Your task to perform on an android device: turn off wifi Image 0: 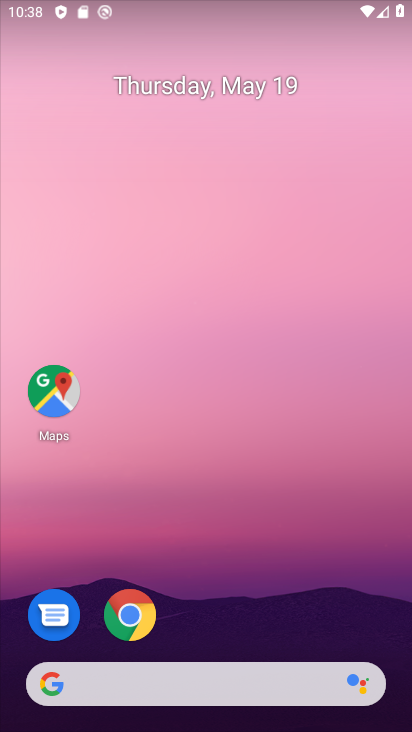
Step 0: drag from (277, 621) to (149, 75)
Your task to perform on an android device: turn off wifi Image 1: 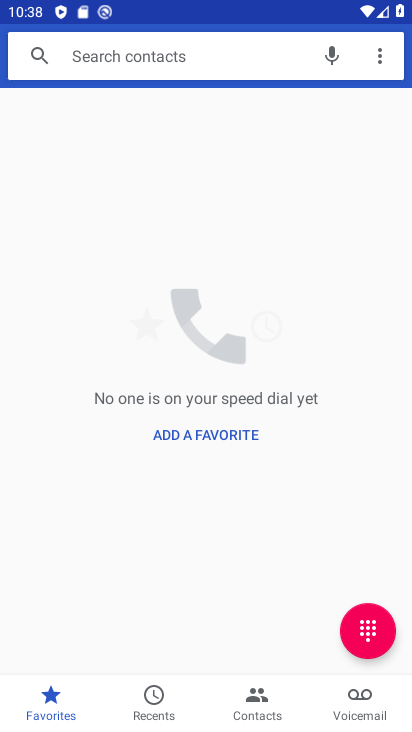
Step 1: press back button
Your task to perform on an android device: turn off wifi Image 2: 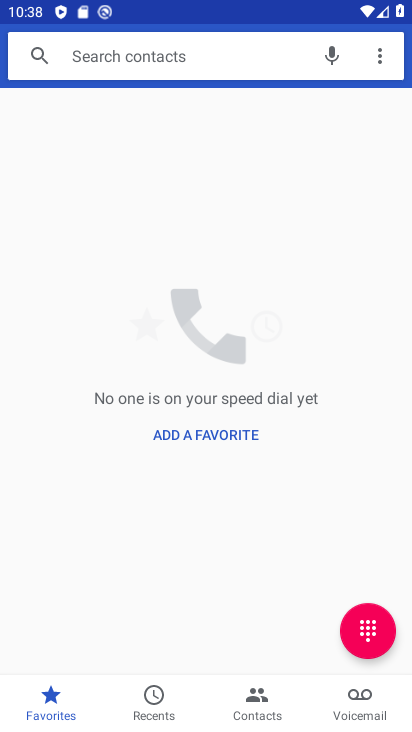
Step 2: press back button
Your task to perform on an android device: turn off wifi Image 3: 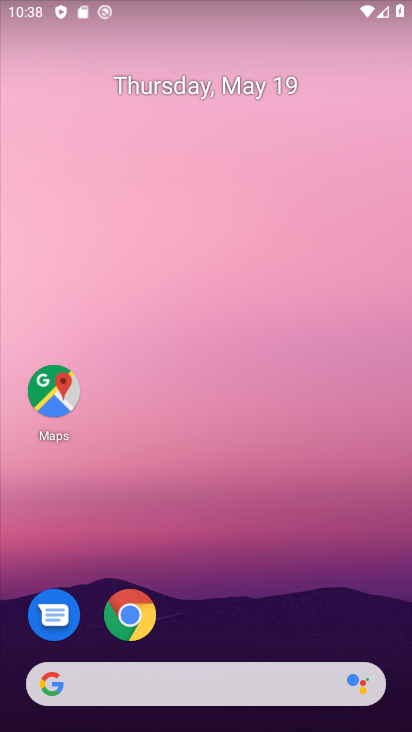
Step 3: drag from (165, 382) to (93, 8)
Your task to perform on an android device: turn off wifi Image 4: 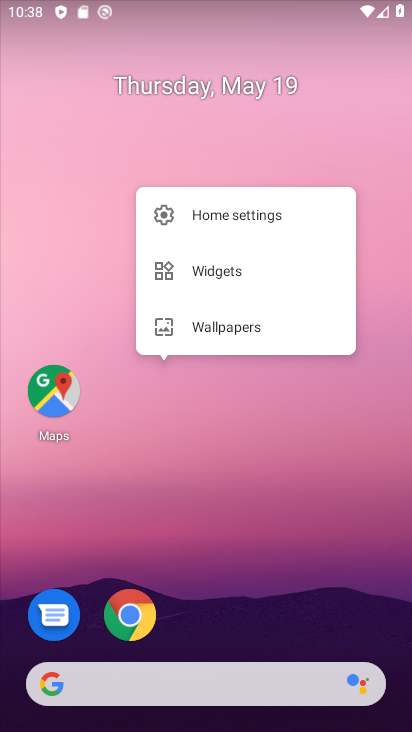
Step 4: drag from (236, 622) to (180, 0)
Your task to perform on an android device: turn off wifi Image 5: 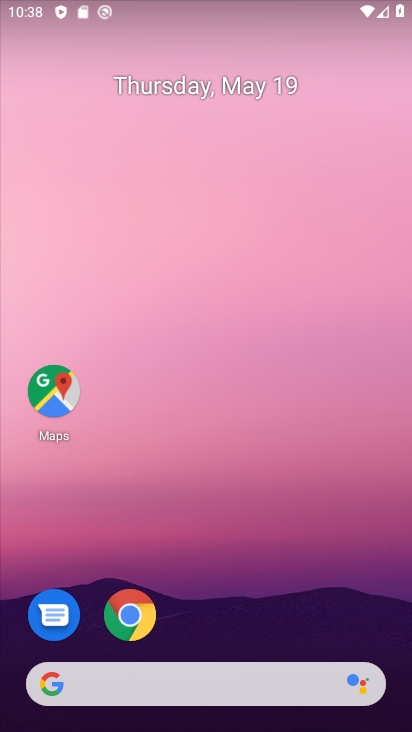
Step 5: drag from (254, 621) to (221, 15)
Your task to perform on an android device: turn off wifi Image 6: 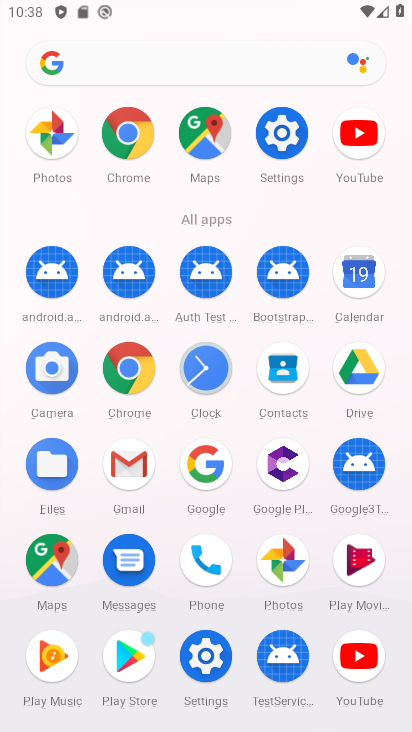
Step 6: drag from (258, 422) to (221, 19)
Your task to perform on an android device: turn off wifi Image 7: 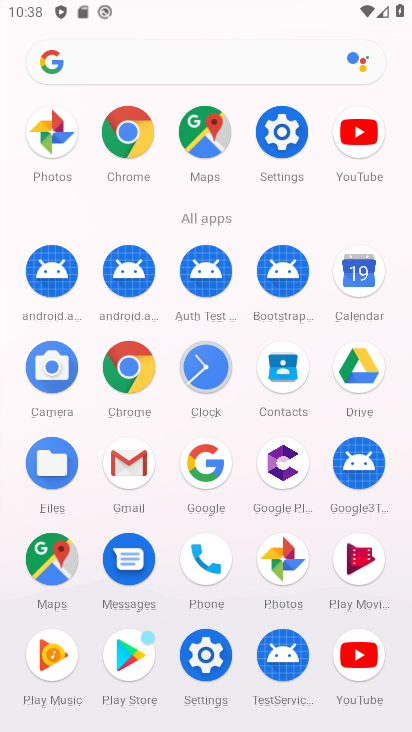
Step 7: click (278, 142)
Your task to perform on an android device: turn off wifi Image 8: 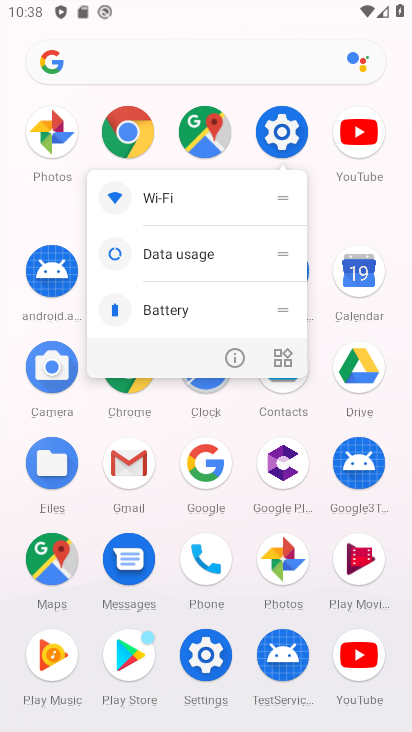
Step 8: click (281, 139)
Your task to perform on an android device: turn off wifi Image 9: 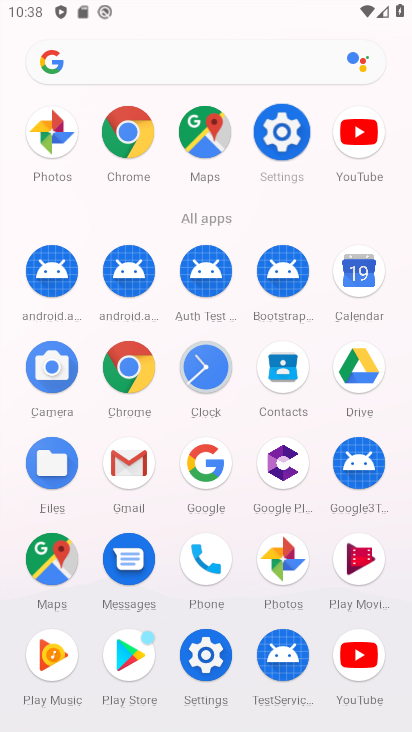
Step 9: click (281, 139)
Your task to perform on an android device: turn off wifi Image 10: 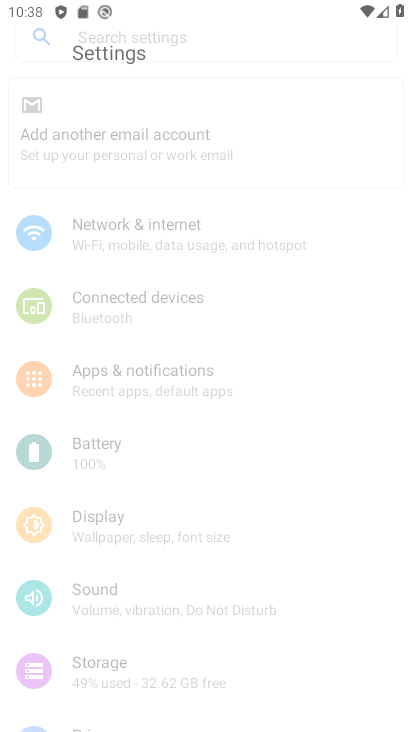
Step 10: click (281, 139)
Your task to perform on an android device: turn off wifi Image 11: 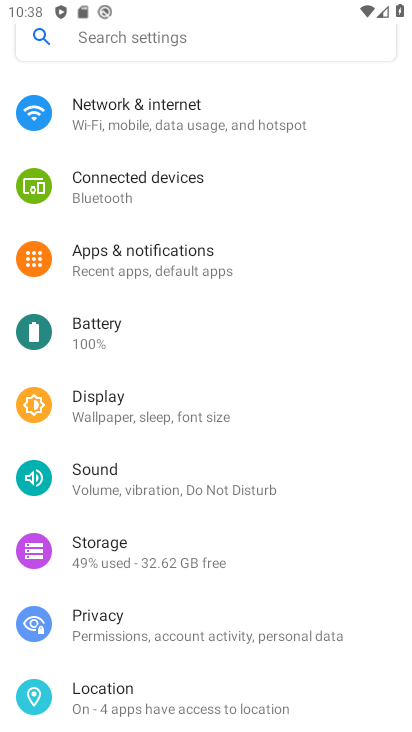
Step 11: click (281, 139)
Your task to perform on an android device: turn off wifi Image 12: 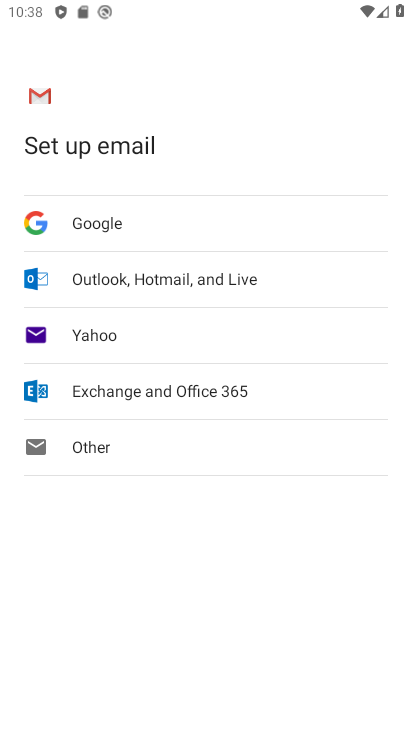
Step 12: click (158, 232)
Your task to perform on an android device: turn off wifi Image 13: 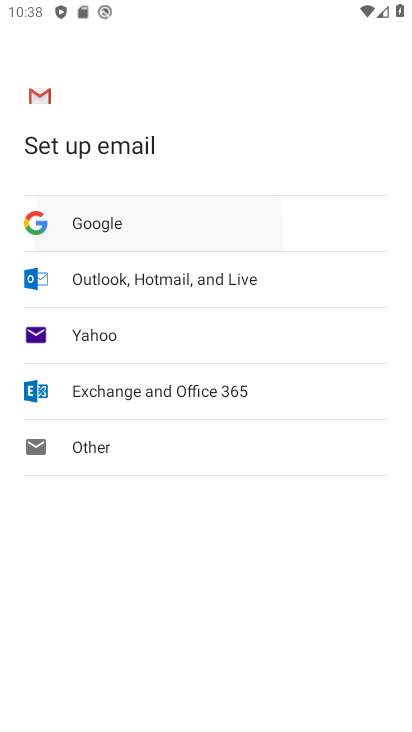
Step 13: click (159, 232)
Your task to perform on an android device: turn off wifi Image 14: 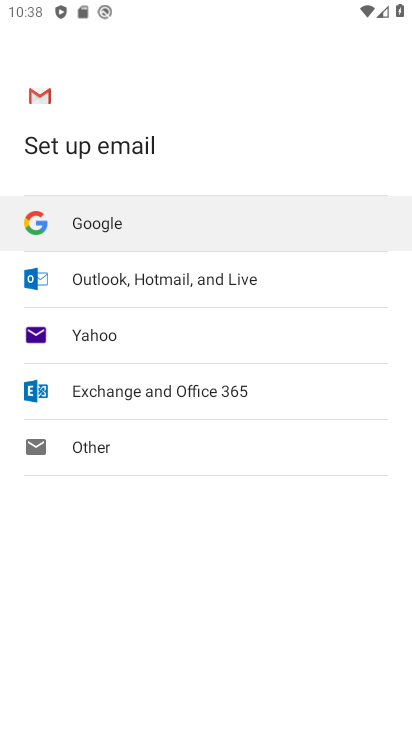
Step 14: click (159, 232)
Your task to perform on an android device: turn off wifi Image 15: 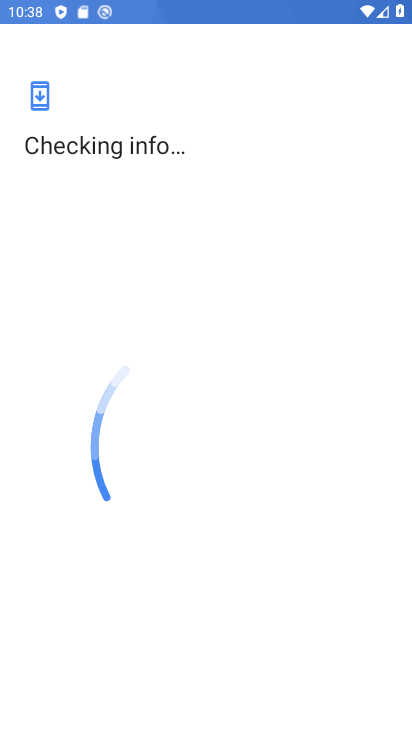
Step 15: press back button
Your task to perform on an android device: turn off wifi Image 16: 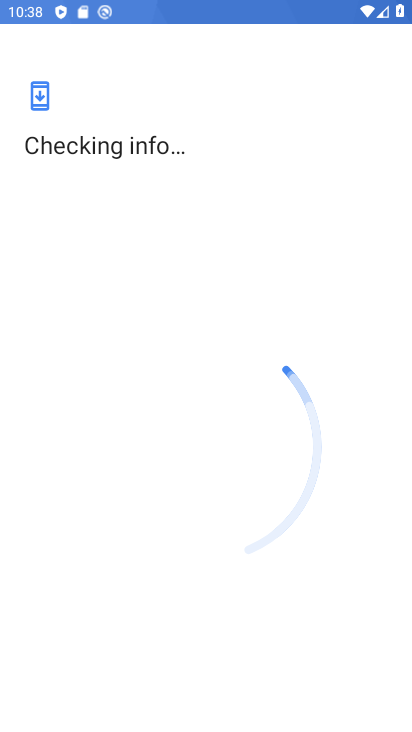
Step 16: press back button
Your task to perform on an android device: turn off wifi Image 17: 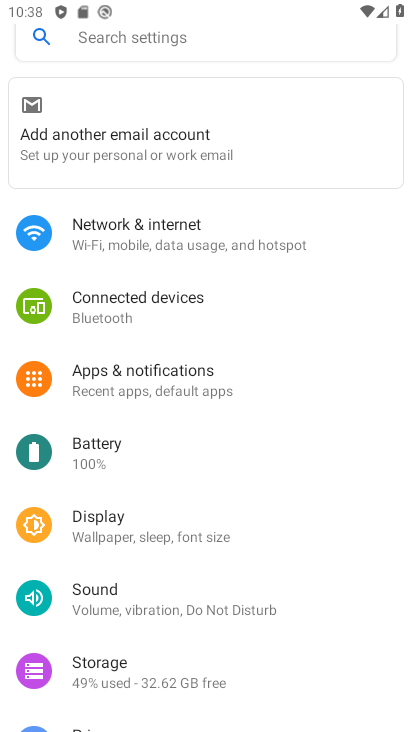
Step 17: click (144, 229)
Your task to perform on an android device: turn off wifi Image 18: 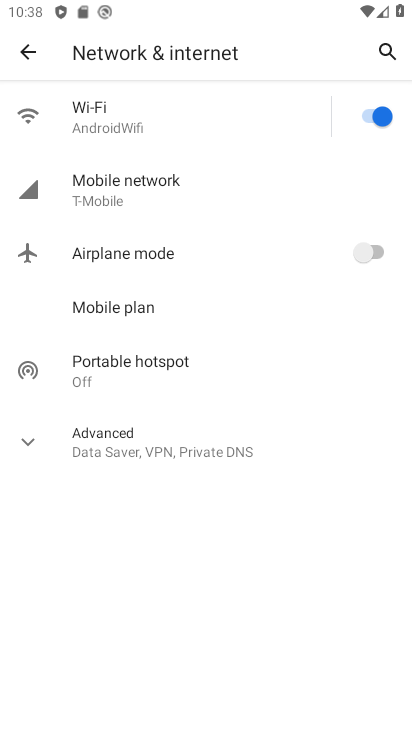
Step 18: click (396, 108)
Your task to perform on an android device: turn off wifi Image 19: 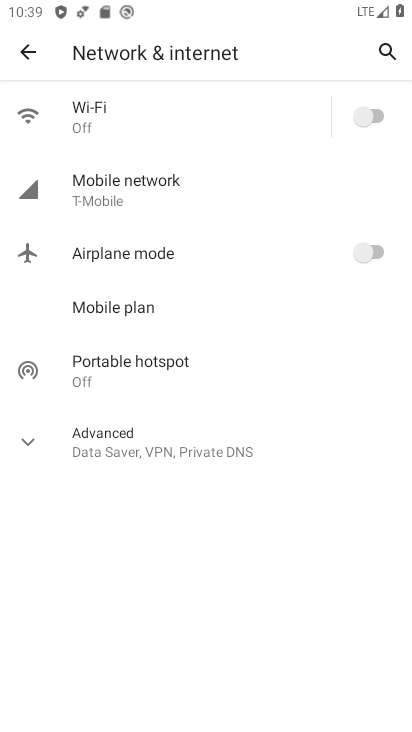
Step 19: task complete